Your task to perform on an android device: all mails in gmail Image 0: 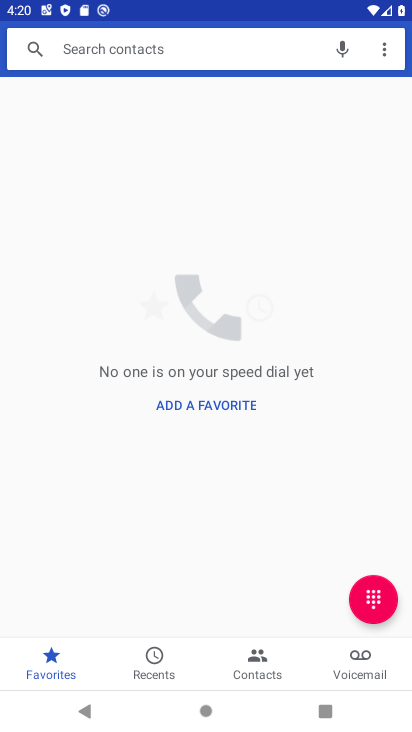
Step 0: press home button
Your task to perform on an android device: all mails in gmail Image 1: 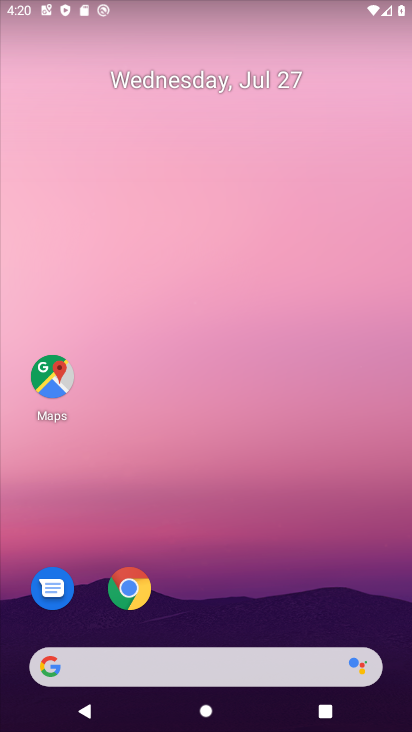
Step 1: drag from (232, 692) to (232, 346)
Your task to perform on an android device: all mails in gmail Image 2: 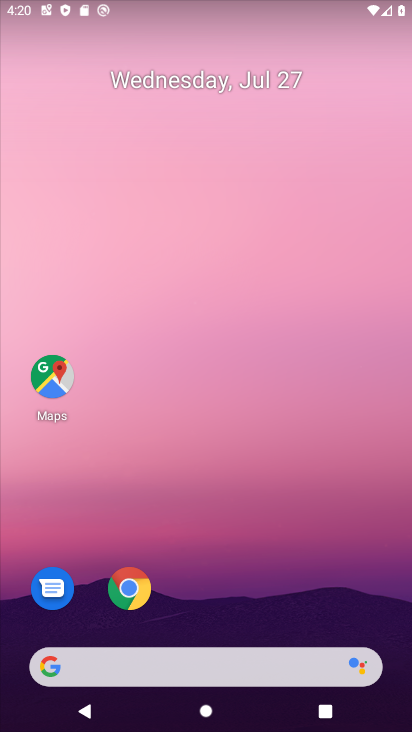
Step 2: drag from (241, 728) to (228, 50)
Your task to perform on an android device: all mails in gmail Image 3: 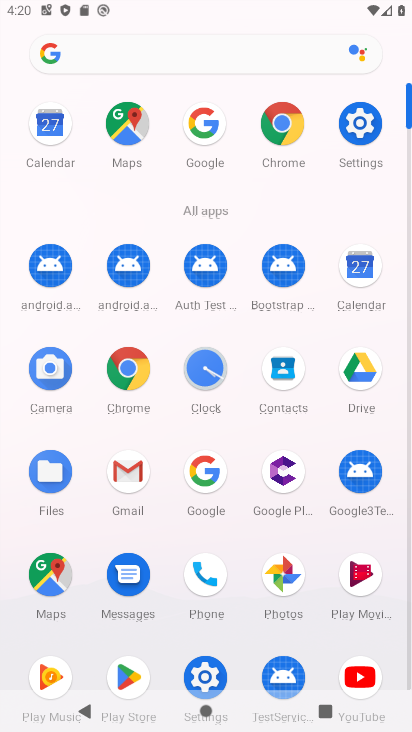
Step 3: click (135, 475)
Your task to perform on an android device: all mails in gmail Image 4: 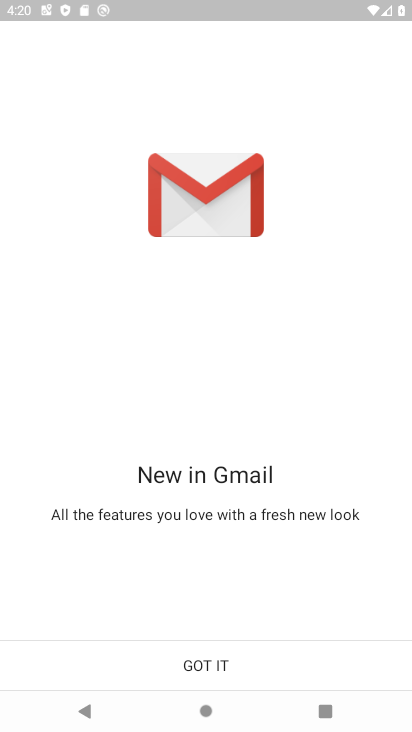
Step 4: click (201, 664)
Your task to perform on an android device: all mails in gmail Image 5: 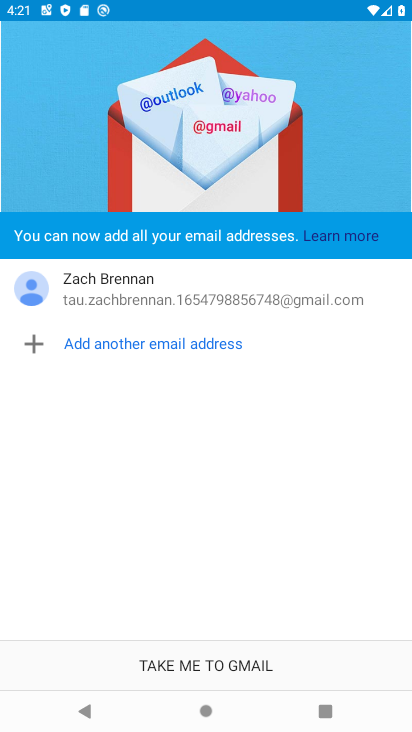
Step 5: click (187, 663)
Your task to perform on an android device: all mails in gmail Image 6: 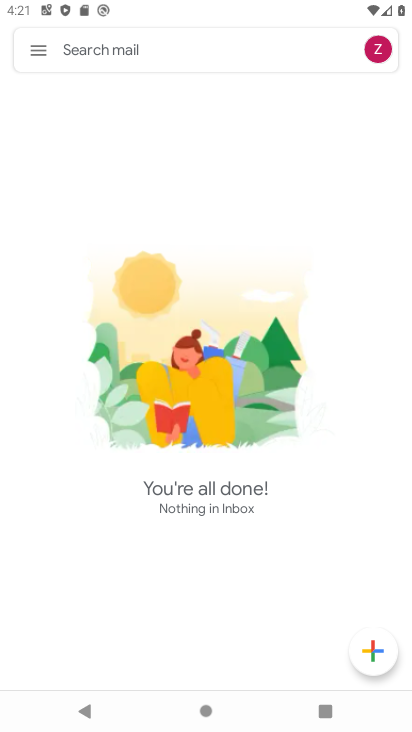
Step 6: click (36, 44)
Your task to perform on an android device: all mails in gmail Image 7: 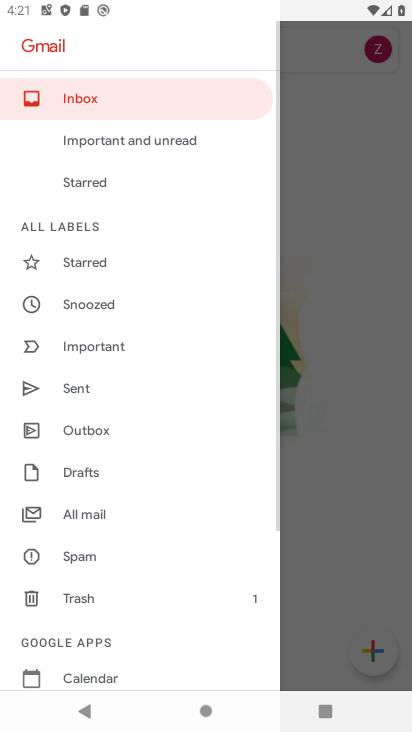
Step 7: click (95, 510)
Your task to perform on an android device: all mails in gmail Image 8: 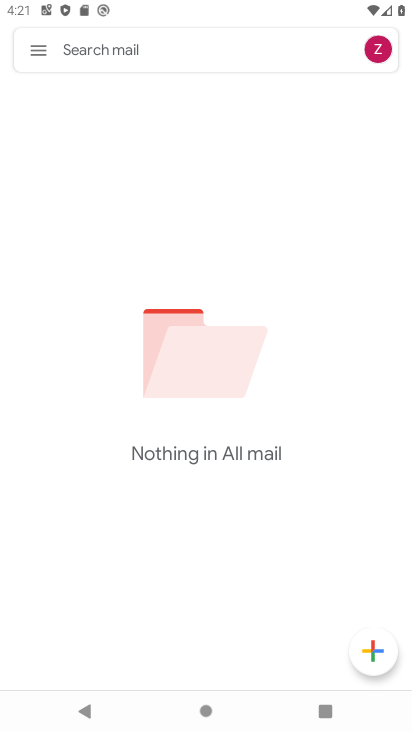
Step 8: task complete